Your task to perform on an android device: Open my contact list Image 0: 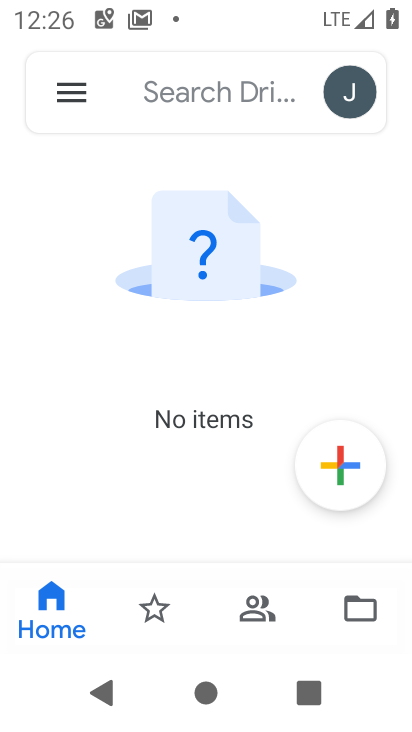
Step 0: press home button
Your task to perform on an android device: Open my contact list Image 1: 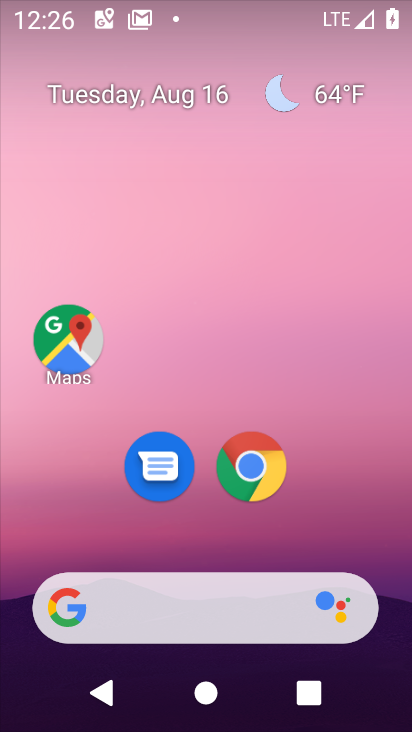
Step 1: drag from (144, 625) to (186, 182)
Your task to perform on an android device: Open my contact list Image 2: 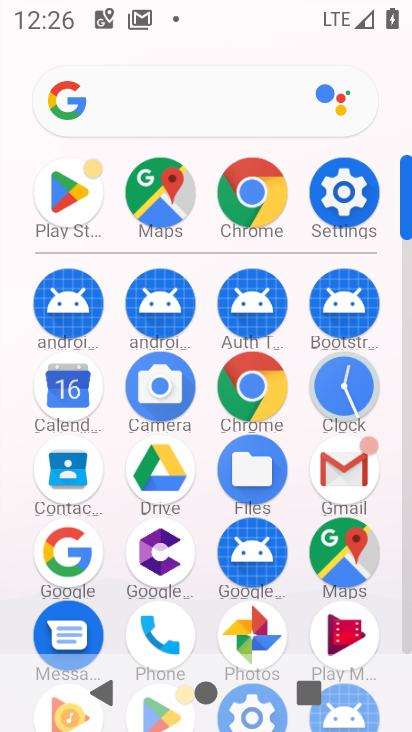
Step 2: click (170, 629)
Your task to perform on an android device: Open my contact list Image 3: 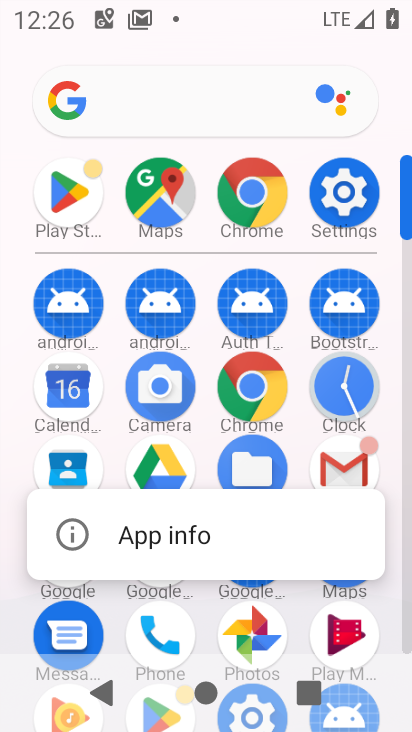
Step 3: click (146, 618)
Your task to perform on an android device: Open my contact list Image 4: 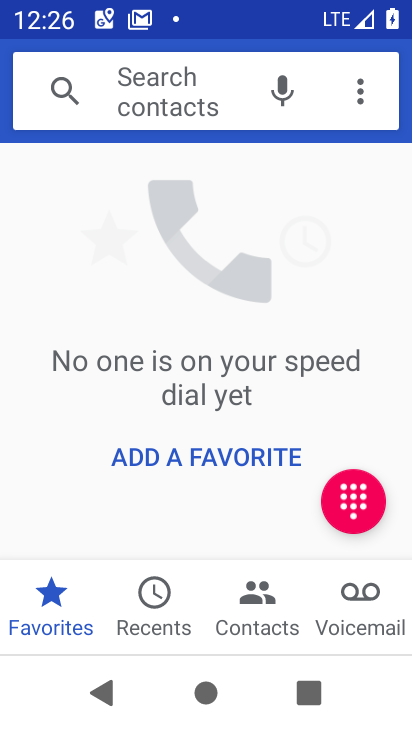
Step 4: click (245, 597)
Your task to perform on an android device: Open my contact list Image 5: 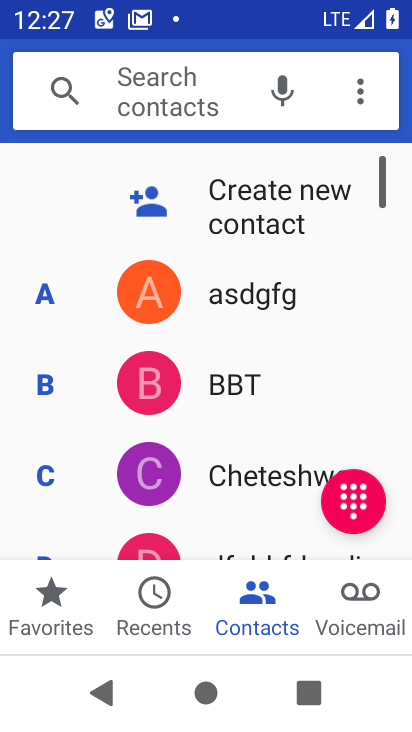
Step 5: task complete